Your task to perform on an android device: Is it going to rain today? Image 0: 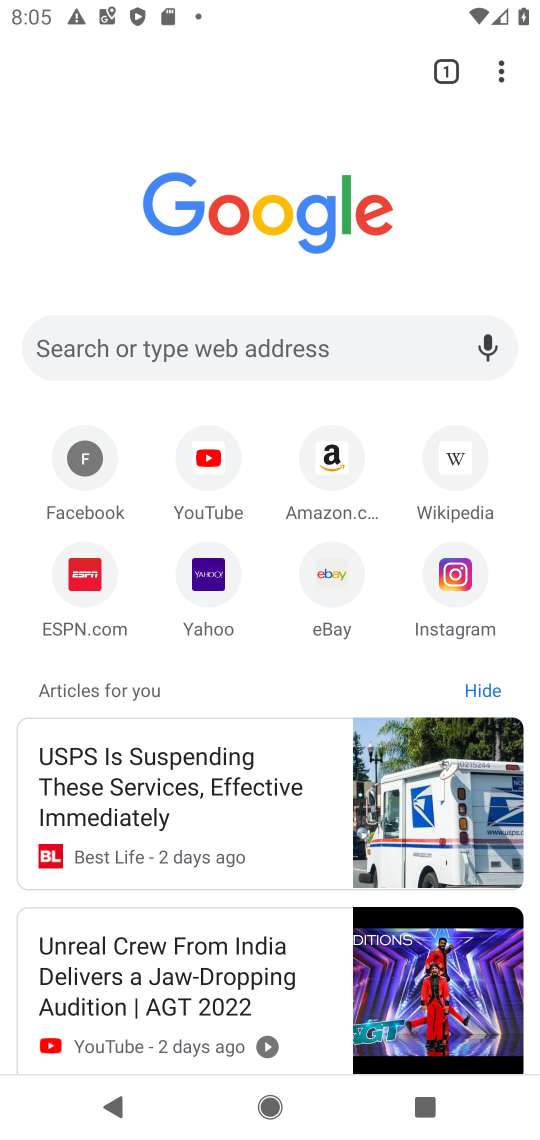
Step 0: press home button
Your task to perform on an android device: Is it going to rain today? Image 1: 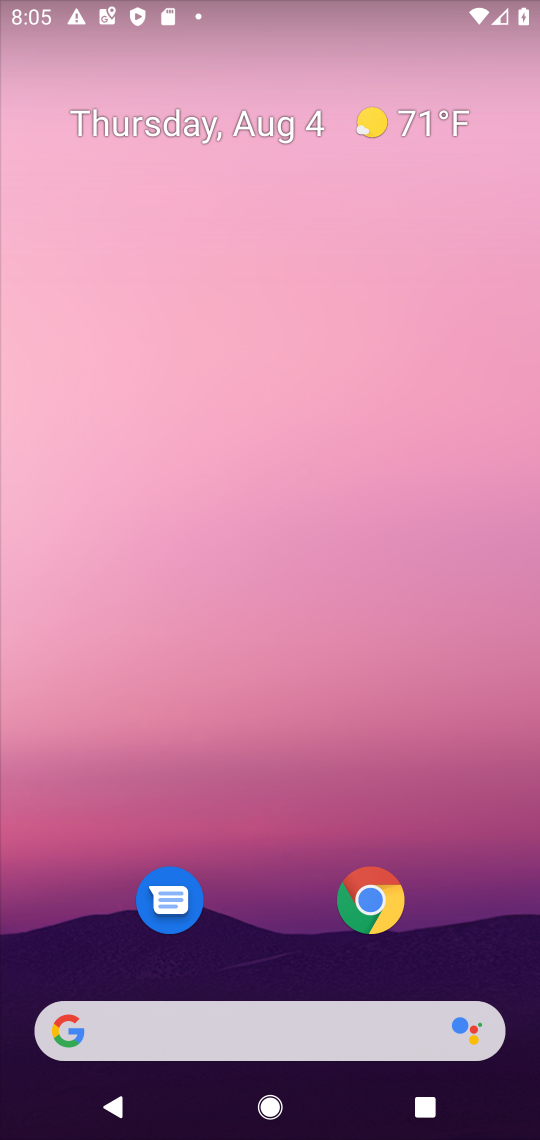
Step 1: click (247, 940)
Your task to perform on an android device: Is it going to rain today? Image 2: 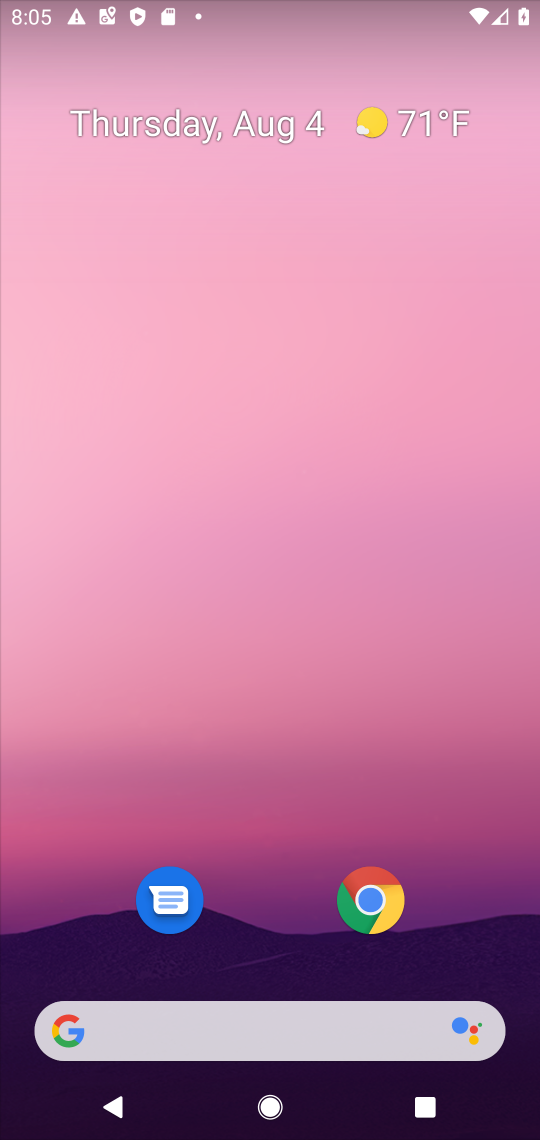
Step 2: click (234, 1031)
Your task to perform on an android device: Is it going to rain today? Image 3: 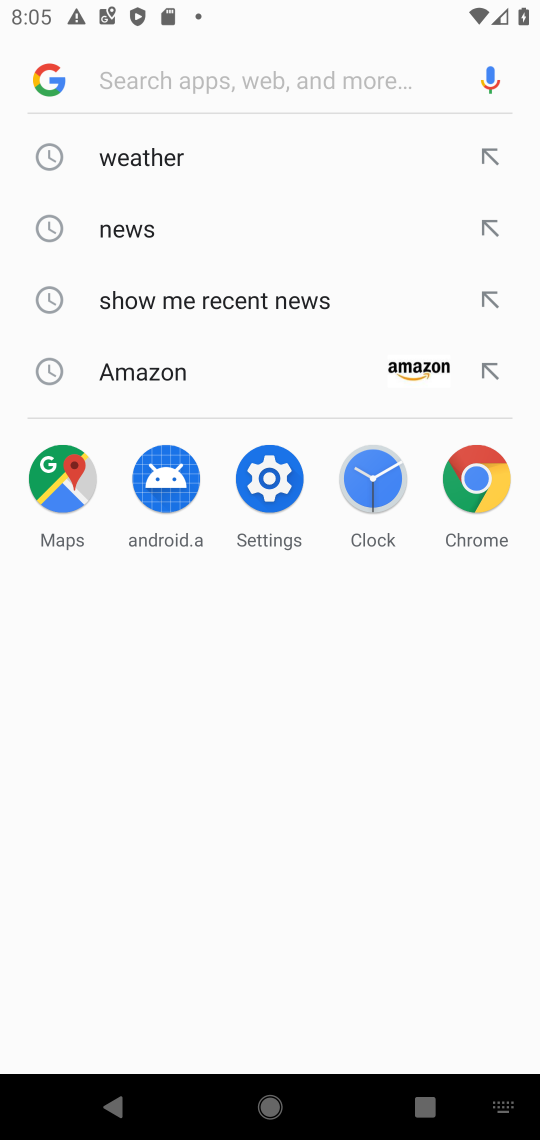
Step 3: type "rain today"
Your task to perform on an android device: Is it going to rain today? Image 4: 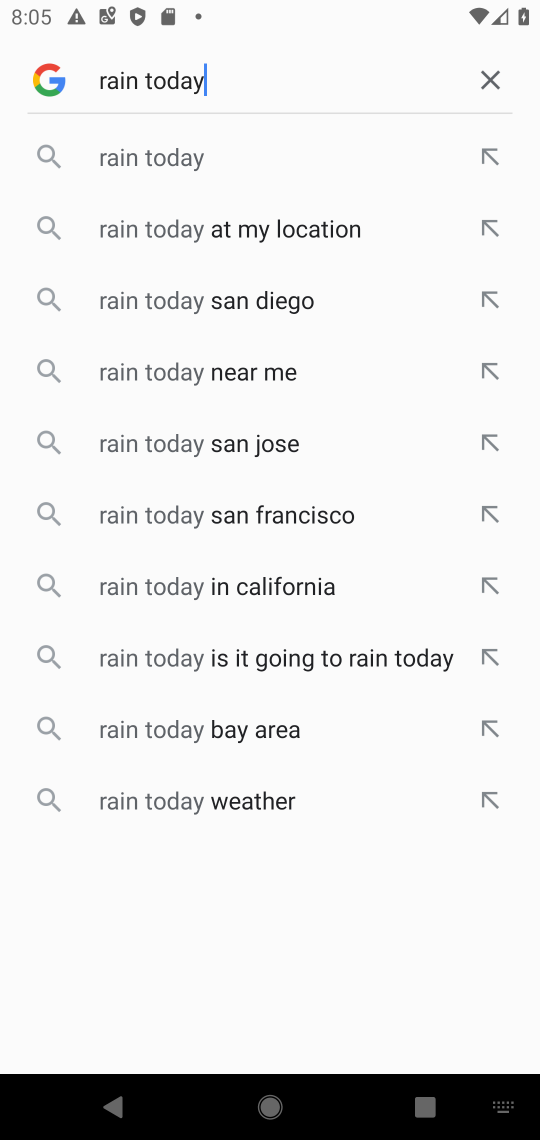
Step 4: click (108, 152)
Your task to perform on an android device: Is it going to rain today? Image 5: 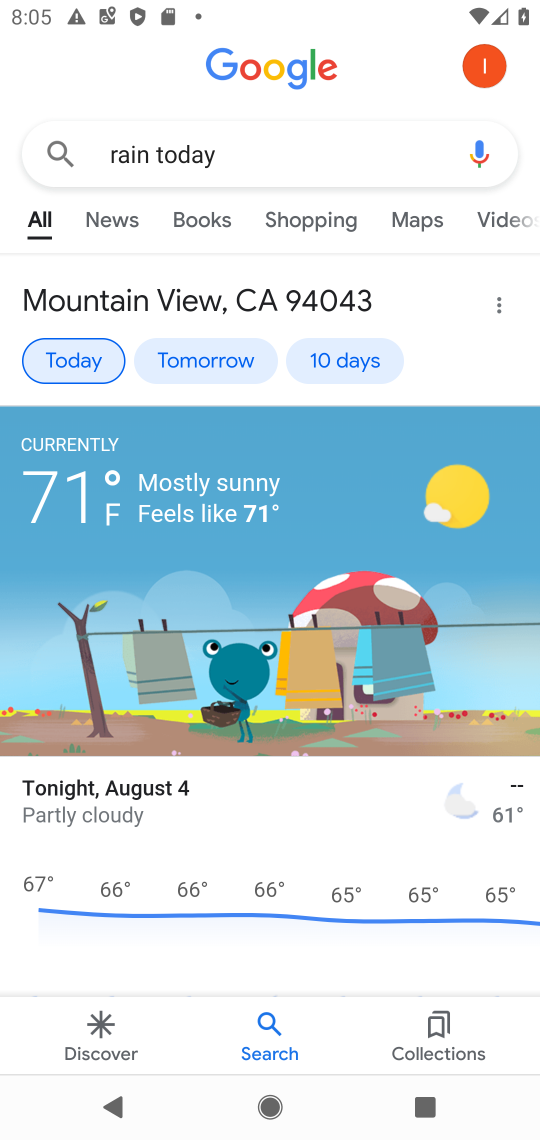
Step 5: task complete